Your task to perform on an android device: see creations saved in the google photos Image 0: 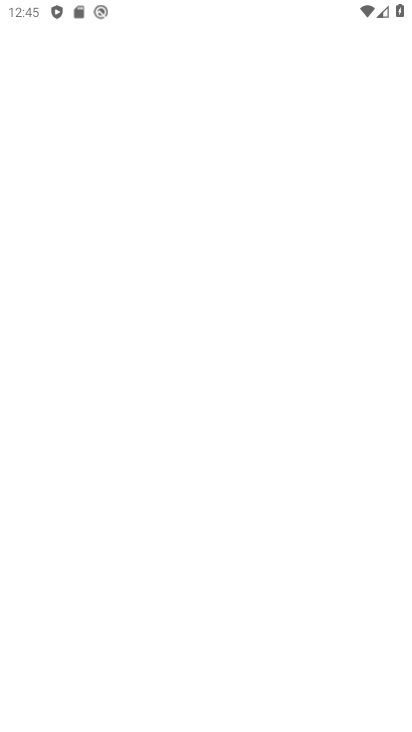
Step 0: drag from (225, 610) to (262, 165)
Your task to perform on an android device: see creations saved in the google photos Image 1: 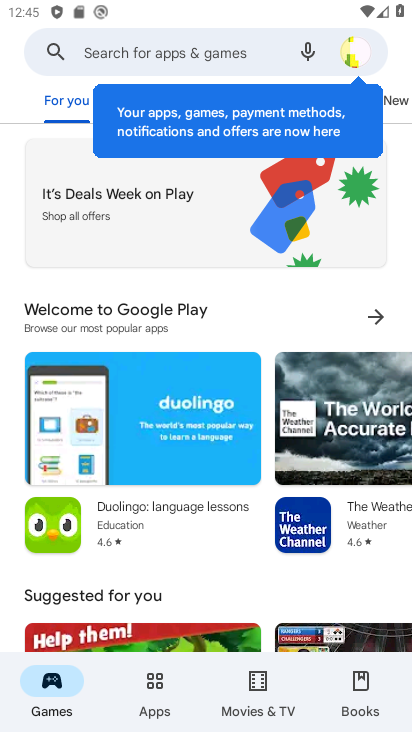
Step 1: press back button
Your task to perform on an android device: see creations saved in the google photos Image 2: 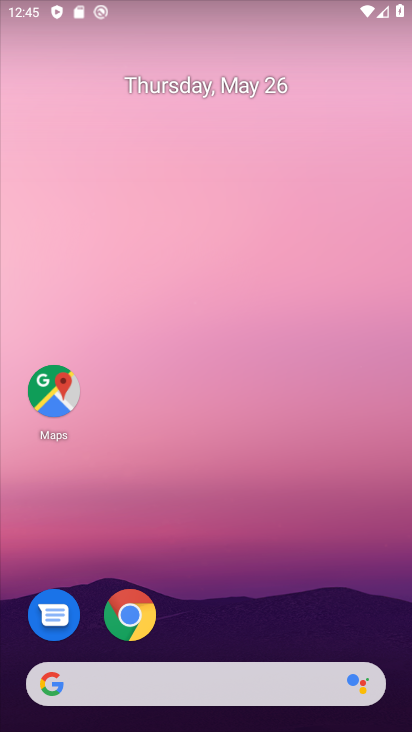
Step 2: drag from (192, 630) to (255, 117)
Your task to perform on an android device: see creations saved in the google photos Image 3: 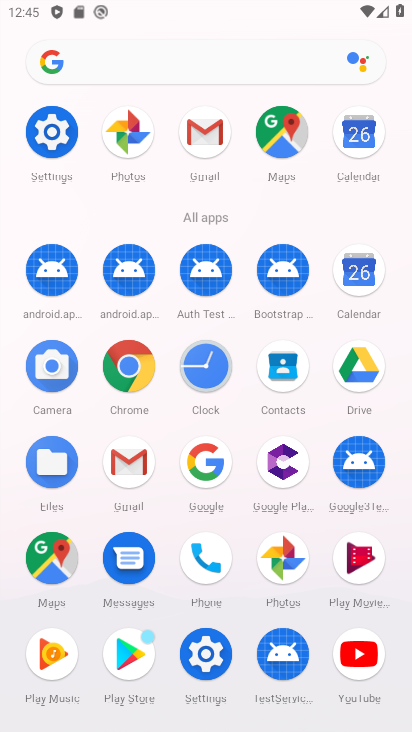
Step 3: click (276, 567)
Your task to perform on an android device: see creations saved in the google photos Image 4: 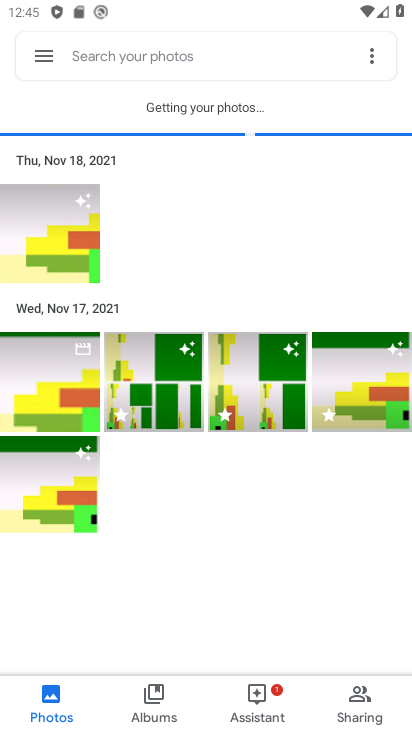
Step 4: click (47, 58)
Your task to perform on an android device: see creations saved in the google photos Image 5: 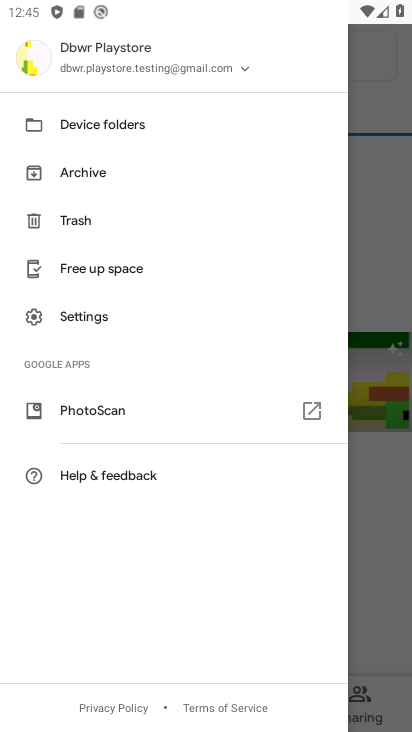
Step 5: click (80, 172)
Your task to perform on an android device: see creations saved in the google photos Image 6: 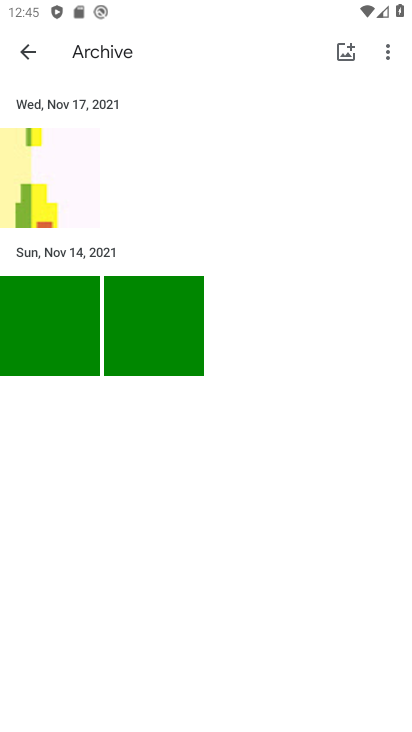
Step 6: task complete